Your task to perform on an android device: turn on showing notifications on the lock screen Image 0: 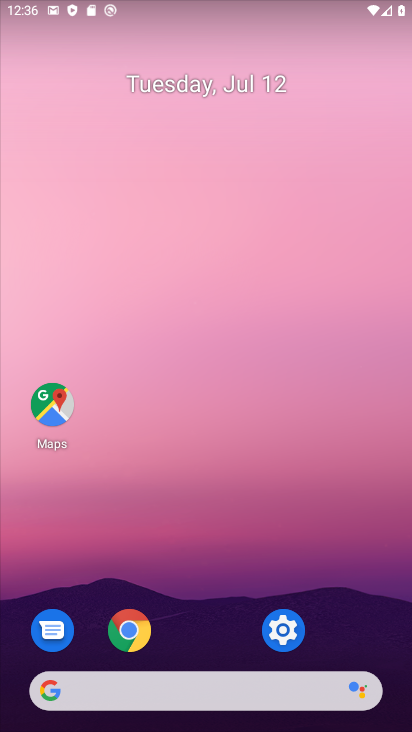
Step 0: drag from (278, 699) to (271, 315)
Your task to perform on an android device: turn on showing notifications on the lock screen Image 1: 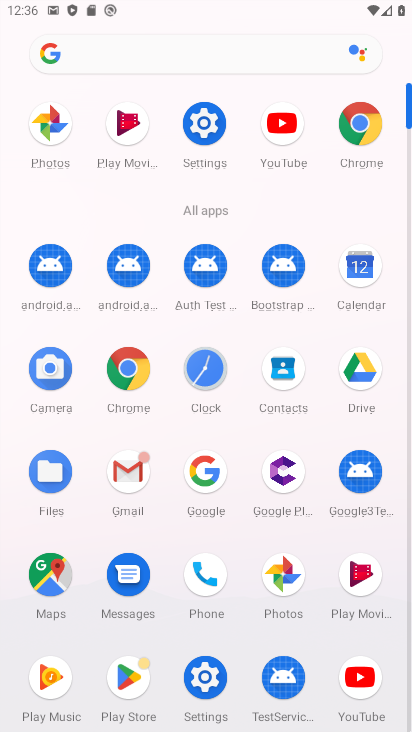
Step 1: click (200, 147)
Your task to perform on an android device: turn on showing notifications on the lock screen Image 2: 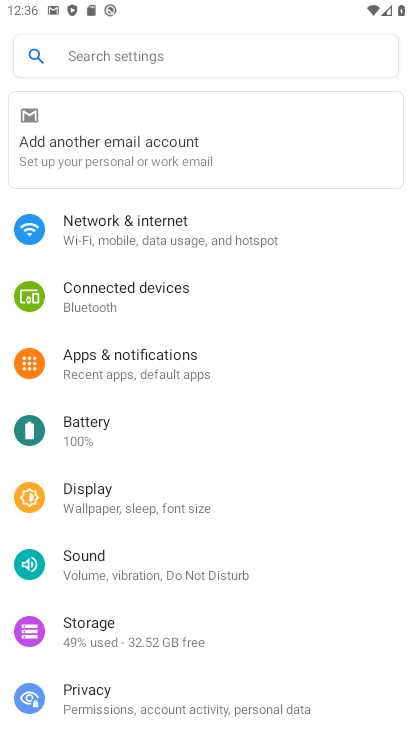
Step 2: click (139, 67)
Your task to perform on an android device: turn on showing notifications on the lock screen Image 3: 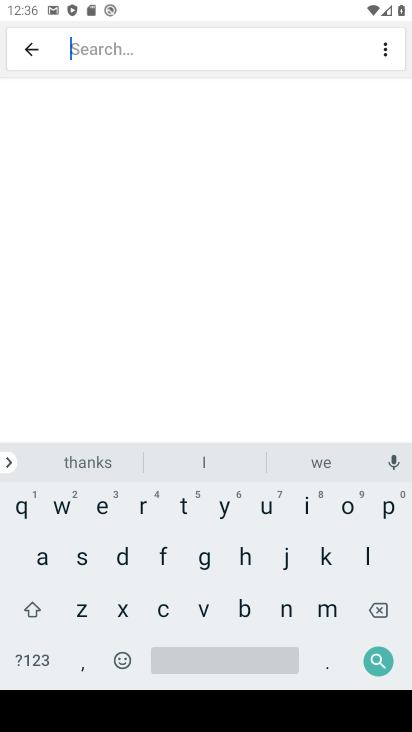
Step 3: click (282, 608)
Your task to perform on an android device: turn on showing notifications on the lock screen Image 4: 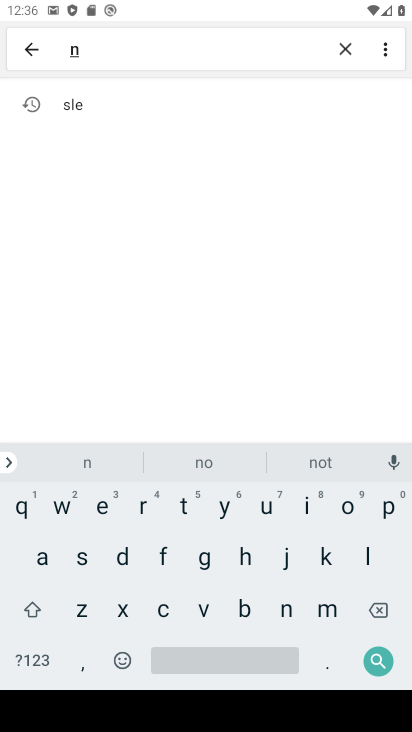
Step 4: click (341, 512)
Your task to perform on an android device: turn on showing notifications on the lock screen Image 5: 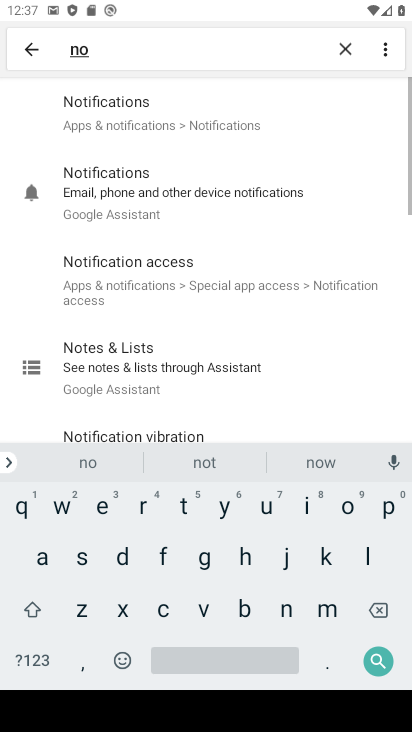
Step 5: click (148, 125)
Your task to perform on an android device: turn on showing notifications on the lock screen Image 6: 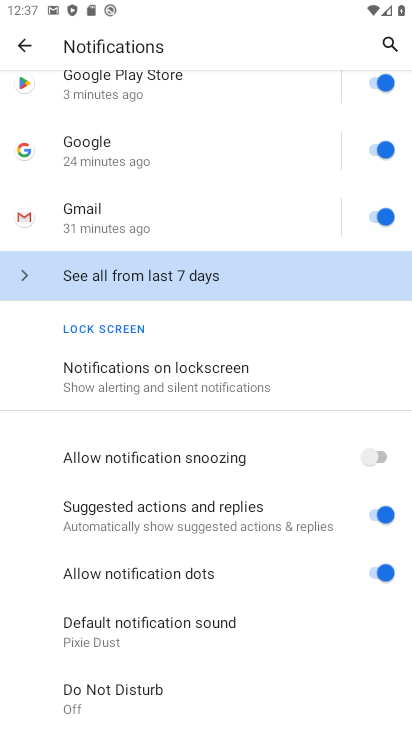
Step 6: click (142, 370)
Your task to perform on an android device: turn on showing notifications on the lock screen Image 7: 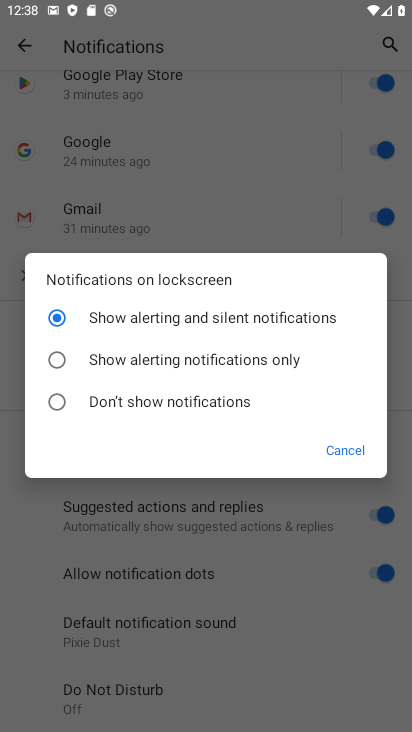
Step 7: task complete